Your task to perform on an android device: change the clock display to show seconds Image 0: 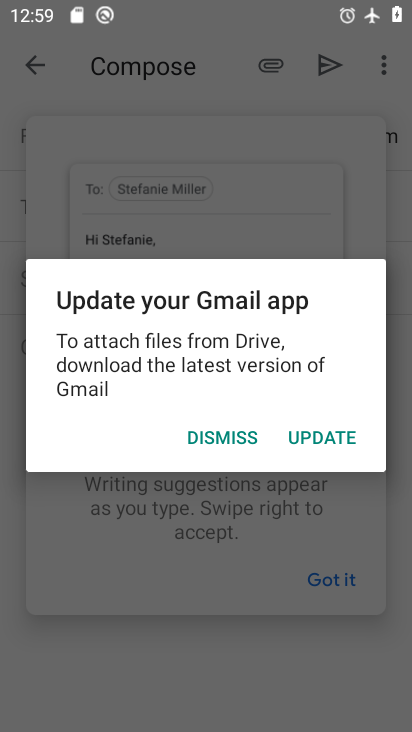
Step 0: press home button
Your task to perform on an android device: change the clock display to show seconds Image 1: 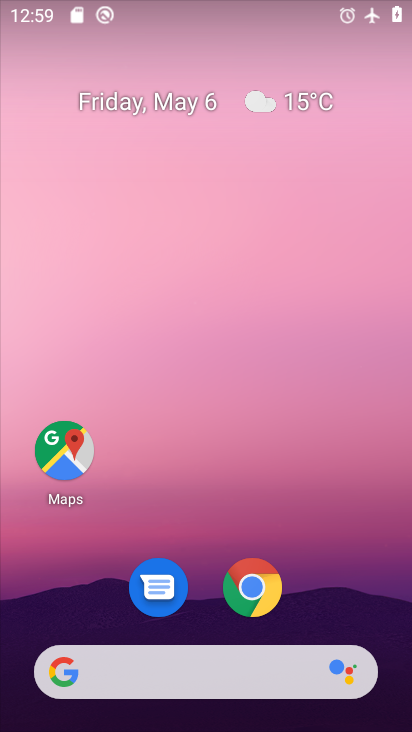
Step 1: drag from (324, 453) to (247, 29)
Your task to perform on an android device: change the clock display to show seconds Image 2: 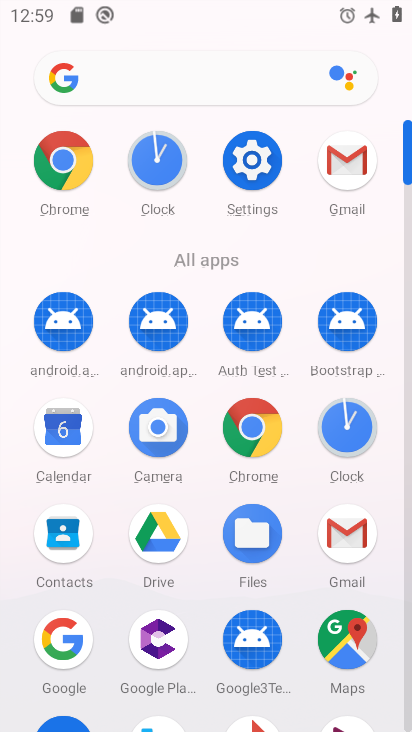
Step 2: click (344, 403)
Your task to perform on an android device: change the clock display to show seconds Image 3: 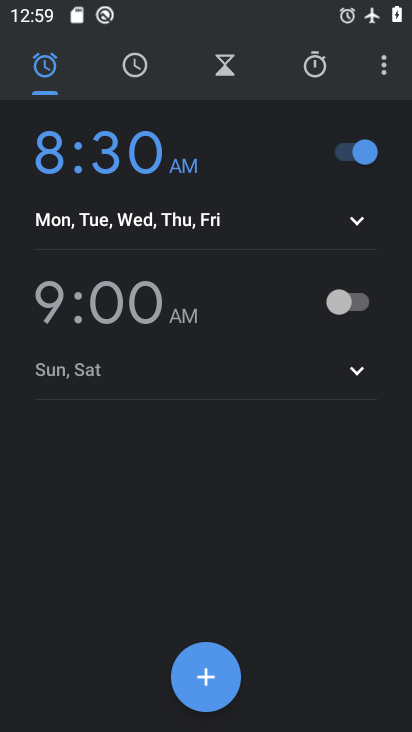
Step 3: click (382, 71)
Your task to perform on an android device: change the clock display to show seconds Image 4: 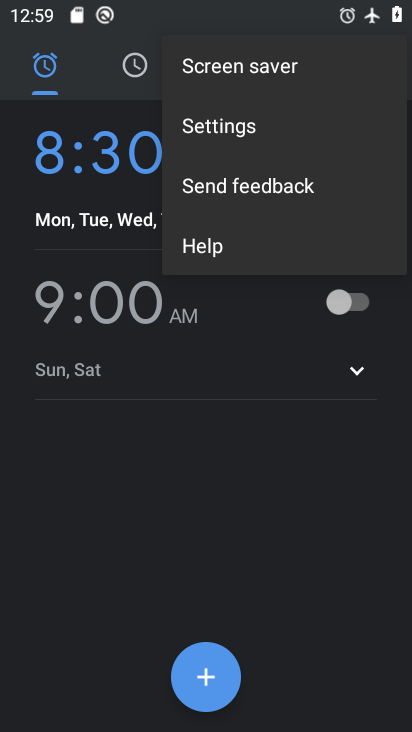
Step 4: click (245, 137)
Your task to perform on an android device: change the clock display to show seconds Image 5: 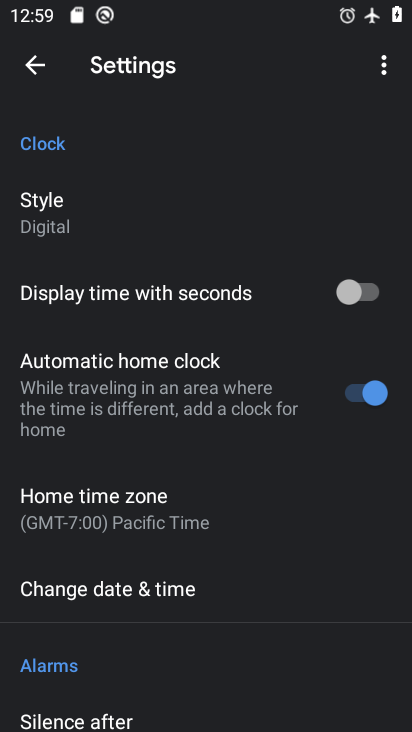
Step 5: click (360, 290)
Your task to perform on an android device: change the clock display to show seconds Image 6: 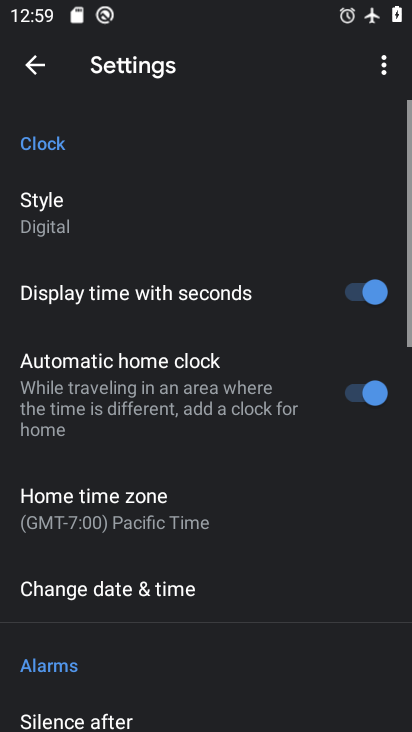
Step 6: task complete